Your task to perform on an android device: Go to calendar. Show me events next week Image 0: 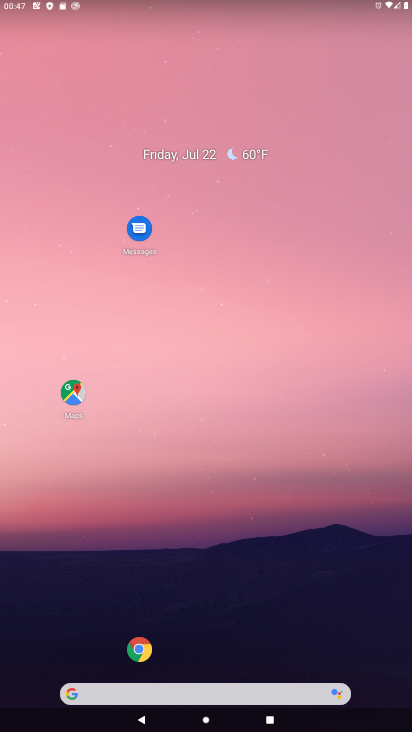
Step 0: drag from (203, 413) to (333, 156)
Your task to perform on an android device: Go to calendar. Show me events next week Image 1: 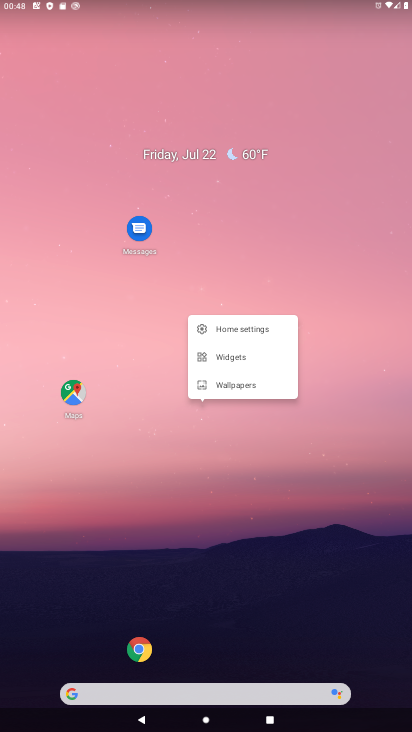
Step 1: task complete